Your task to perform on an android device: Open the phone app and click the voicemail tab. Image 0: 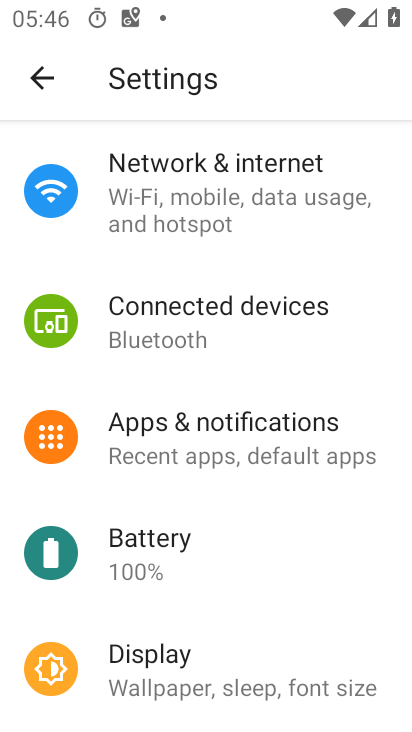
Step 0: press home button
Your task to perform on an android device: Open the phone app and click the voicemail tab. Image 1: 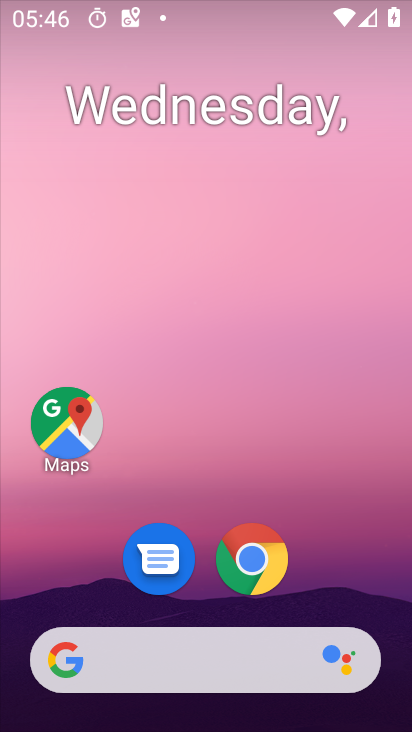
Step 1: drag from (347, 582) to (222, 89)
Your task to perform on an android device: Open the phone app and click the voicemail tab. Image 2: 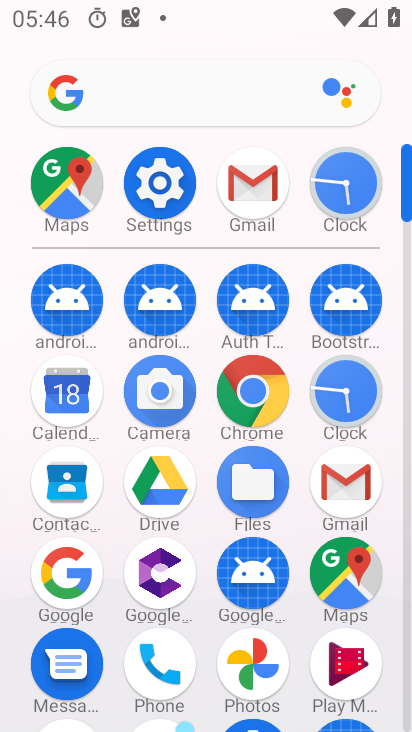
Step 2: click (156, 675)
Your task to perform on an android device: Open the phone app and click the voicemail tab. Image 3: 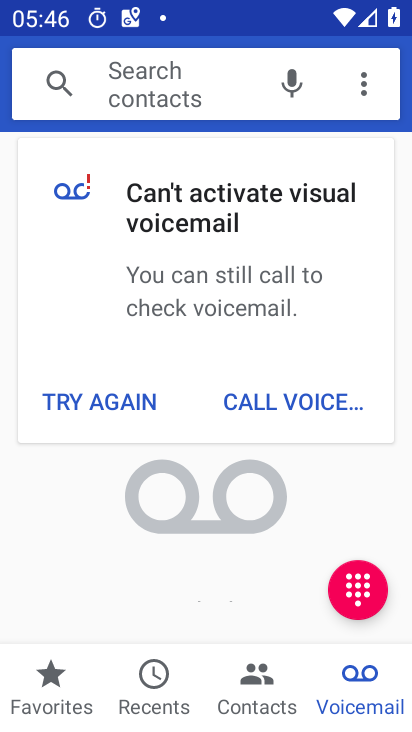
Step 3: task complete